Your task to perform on an android device: uninstall "Reddit" Image 0: 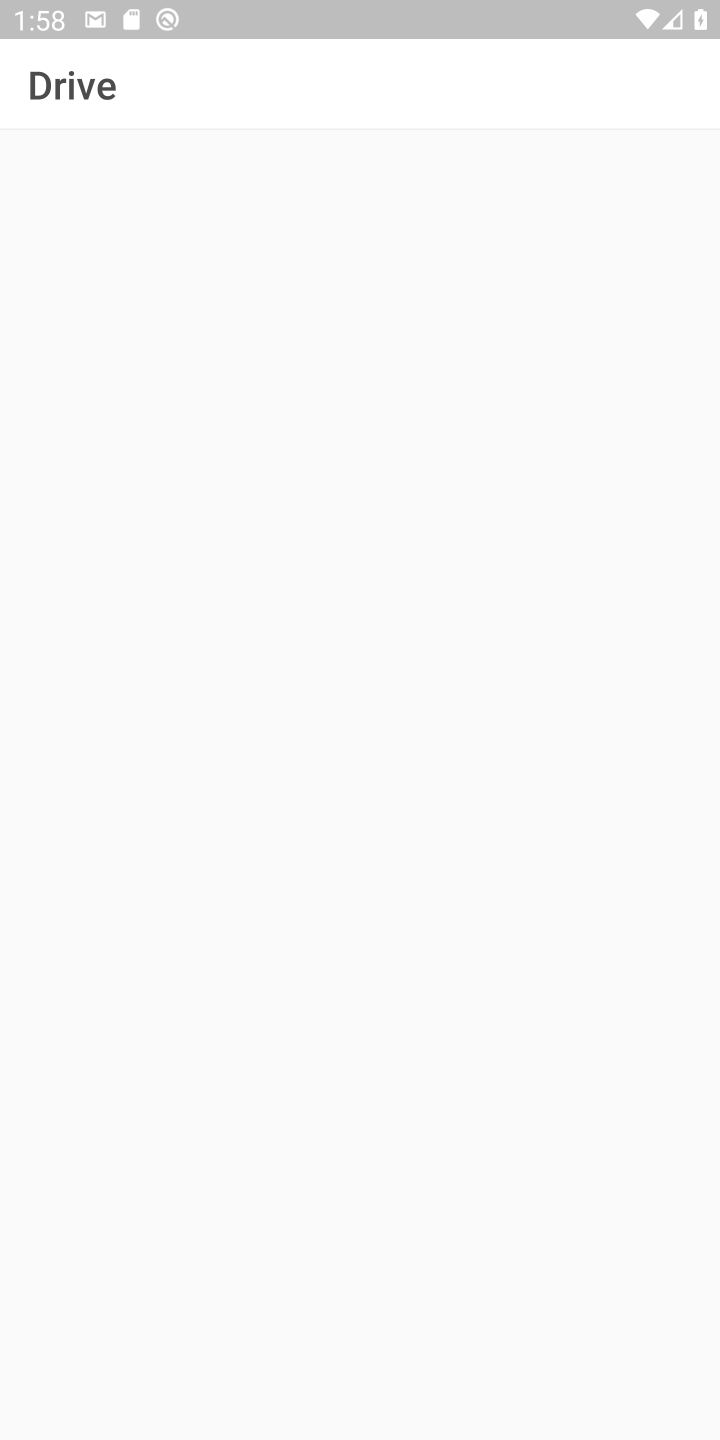
Step 0: press home button
Your task to perform on an android device: uninstall "Reddit" Image 1: 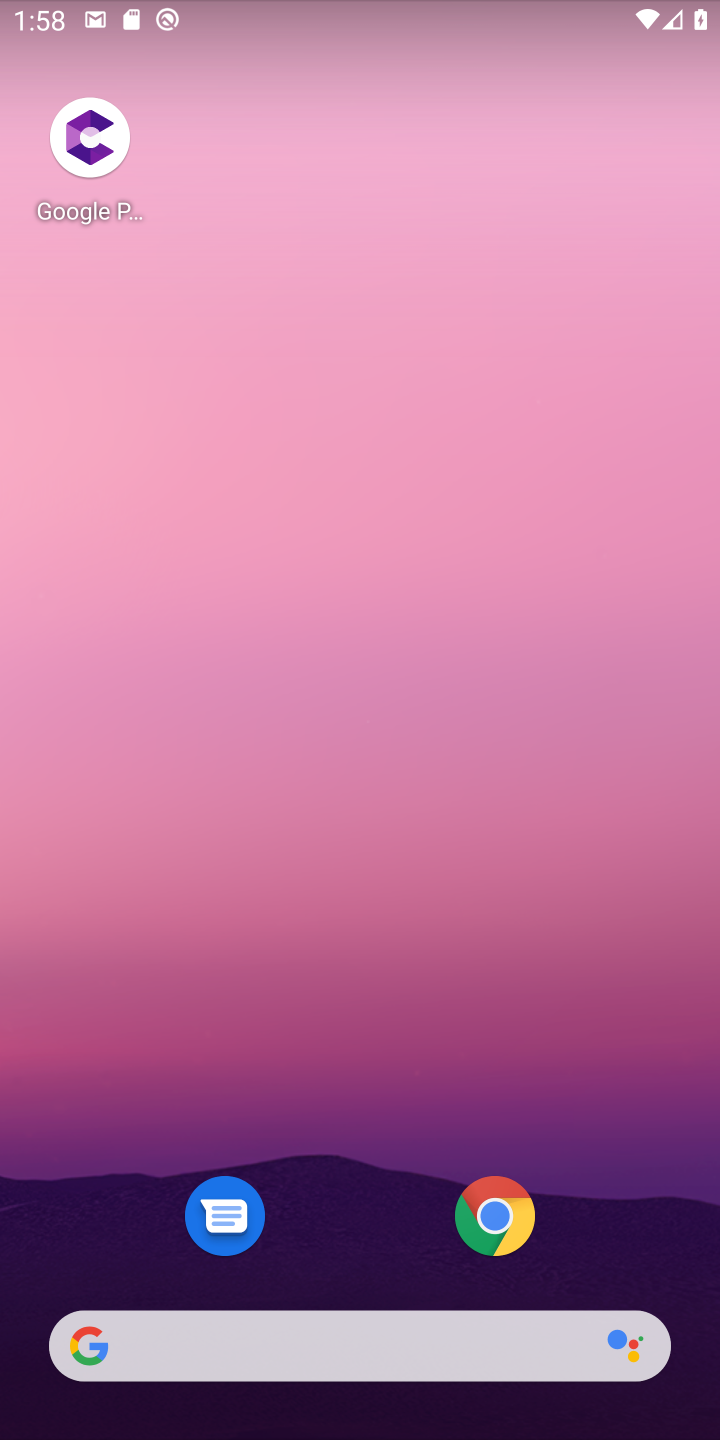
Step 1: drag from (423, 1278) to (637, 7)
Your task to perform on an android device: uninstall "Reddit" Image 2: 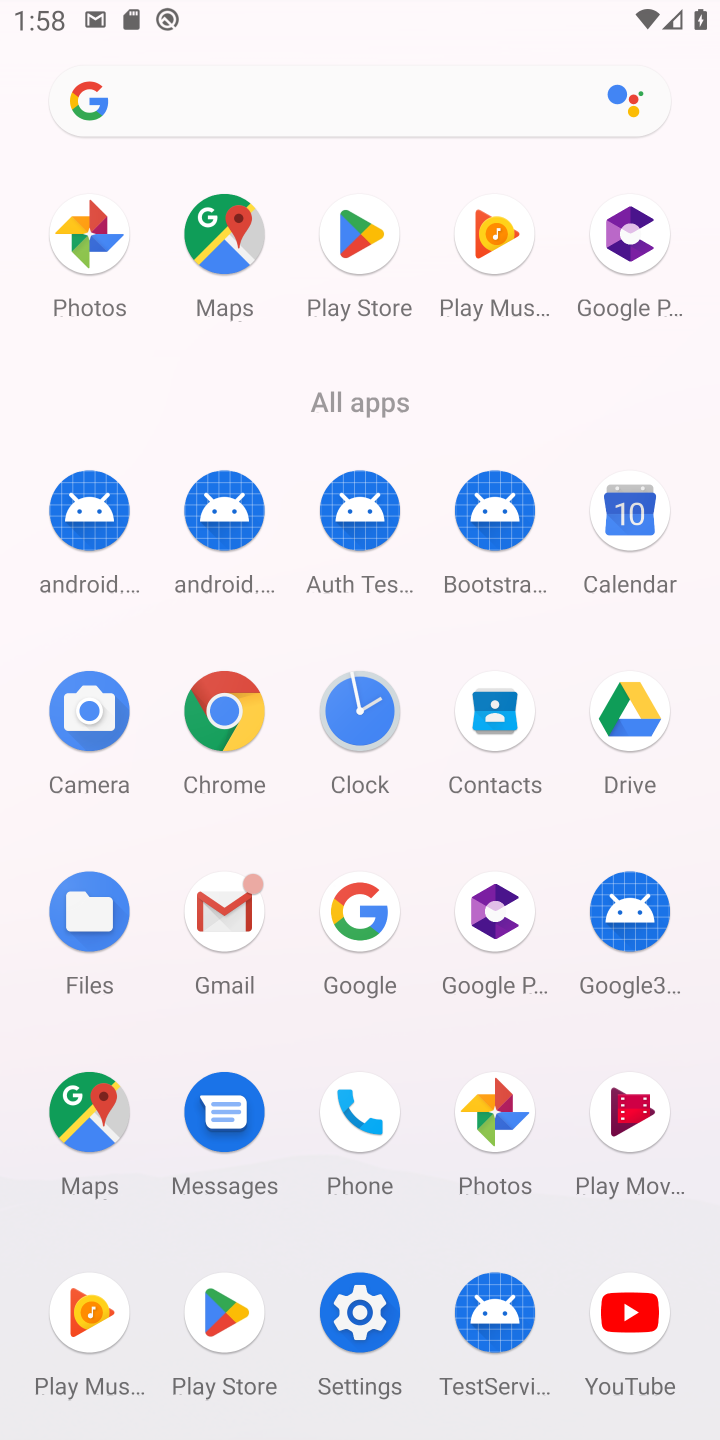
Step 2: click (191, 1338)
Your task to perform on an android device: uninstall "Reddit" Image 3: 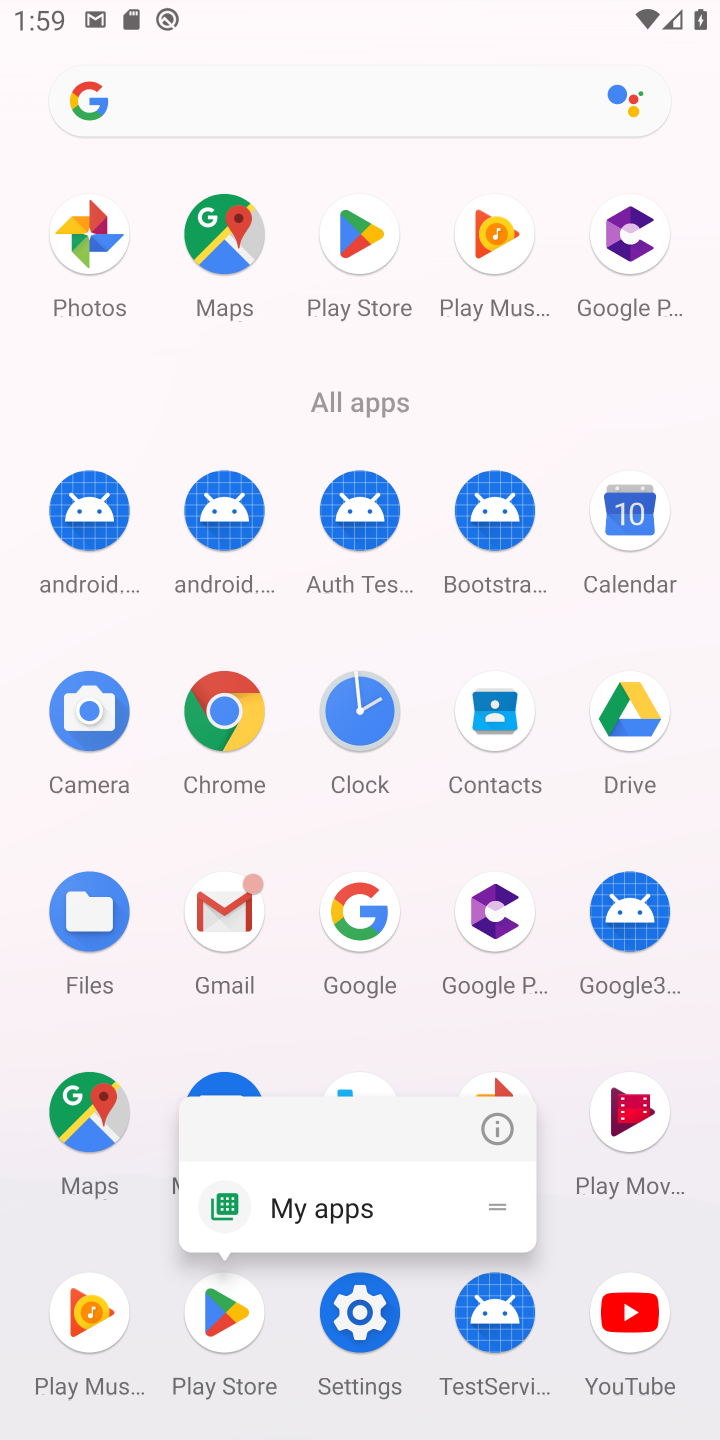
Step 3: click (228, 1333)
Your task to perform on an android device: uninstall "Reddit" Image 4: 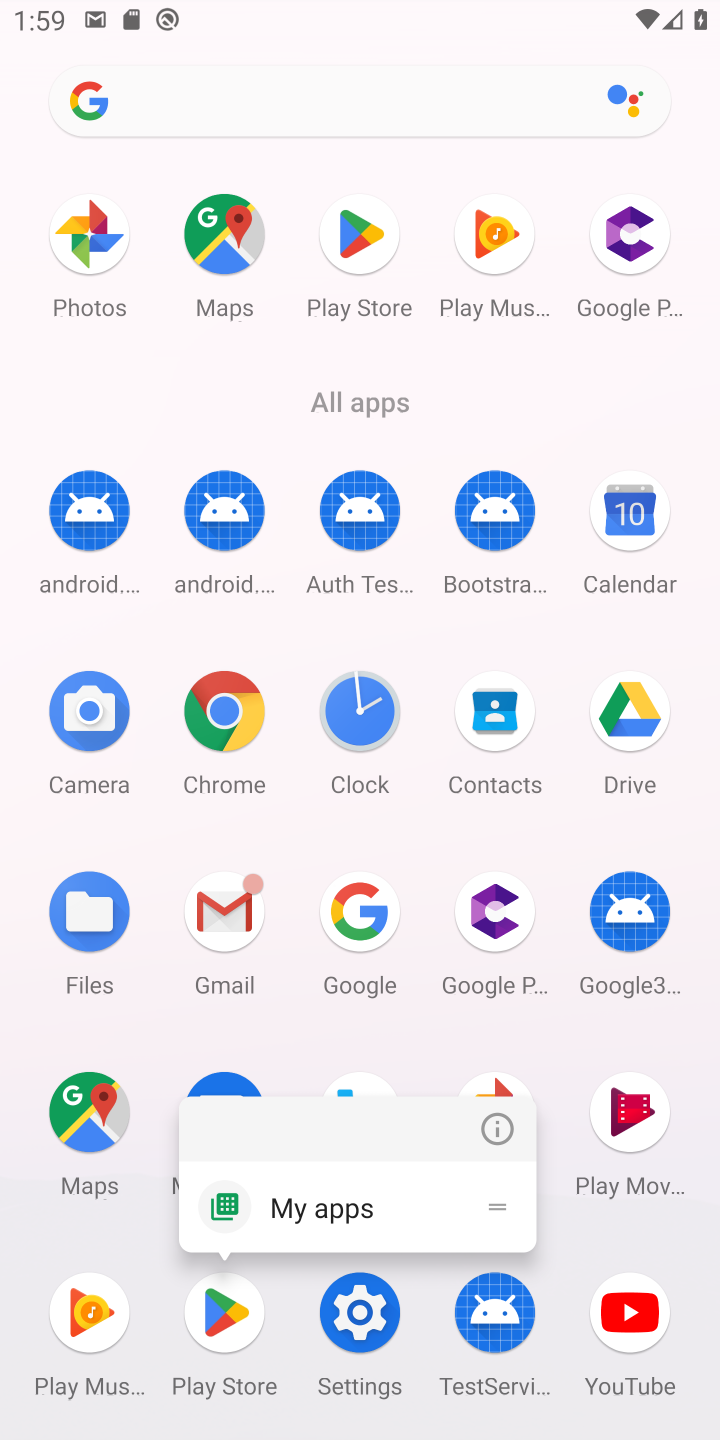
Step 4: click (235, 1316)
Your task to perform on an android device: uninstall "Reddit" Image 5: 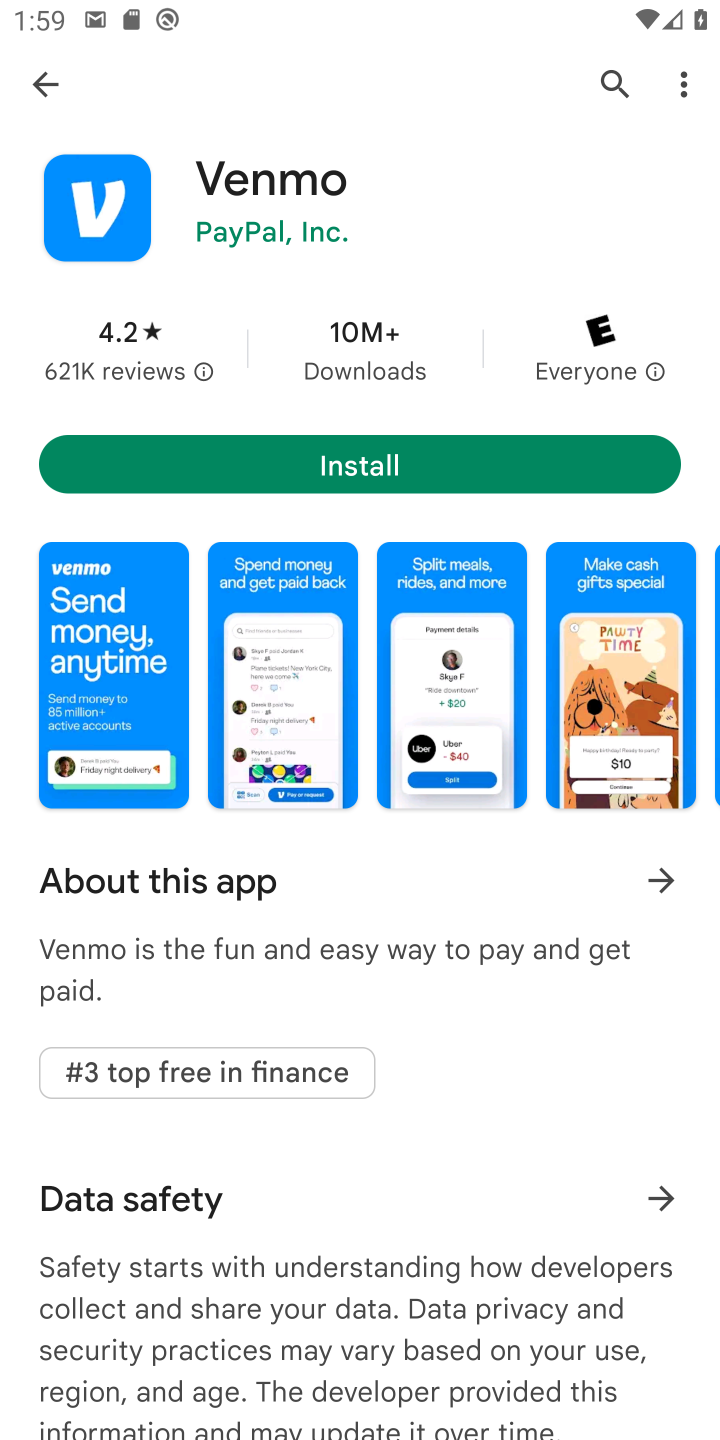
Step 5: click (63, 73)
Your task to perform on an android device: uninstall "Reddit" Image 6: 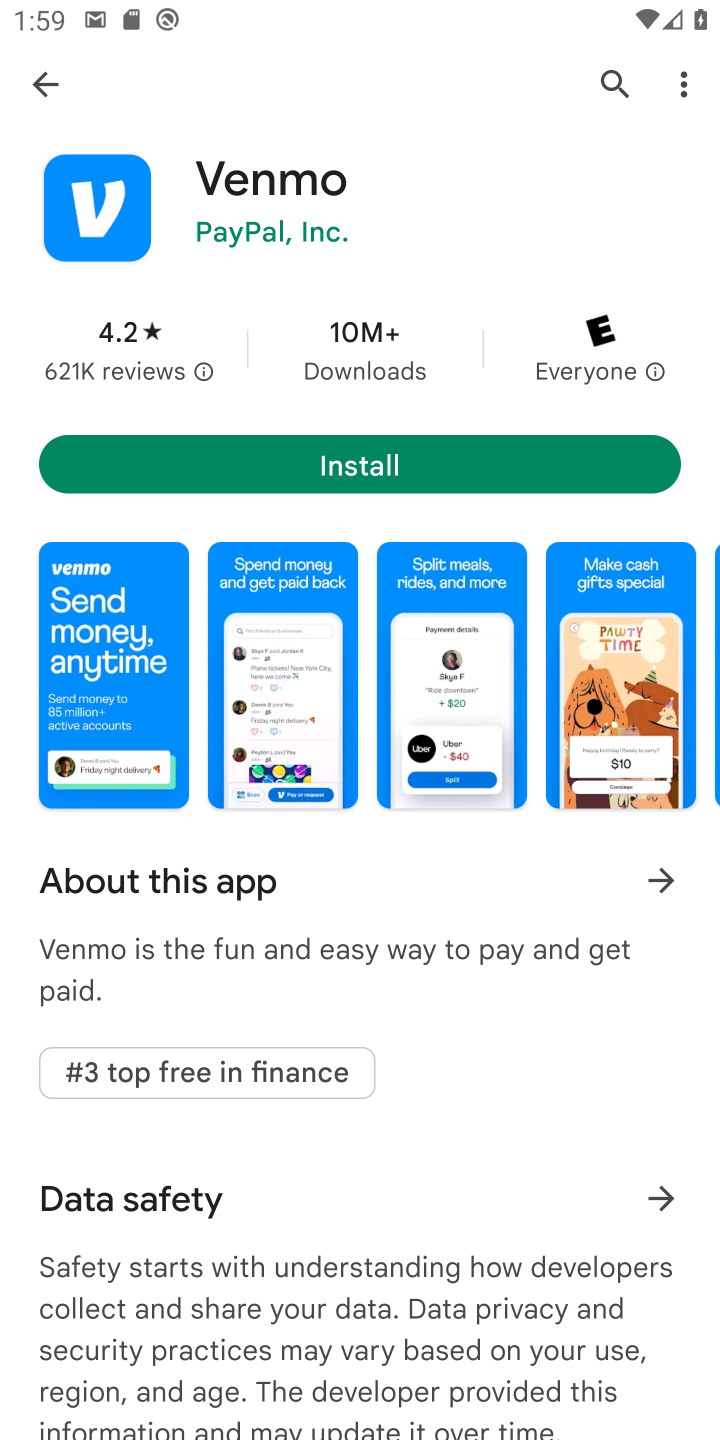
Step 6: click (615, 76)
Your task to perform on an android device: uninstall "Reddit" Image 7: 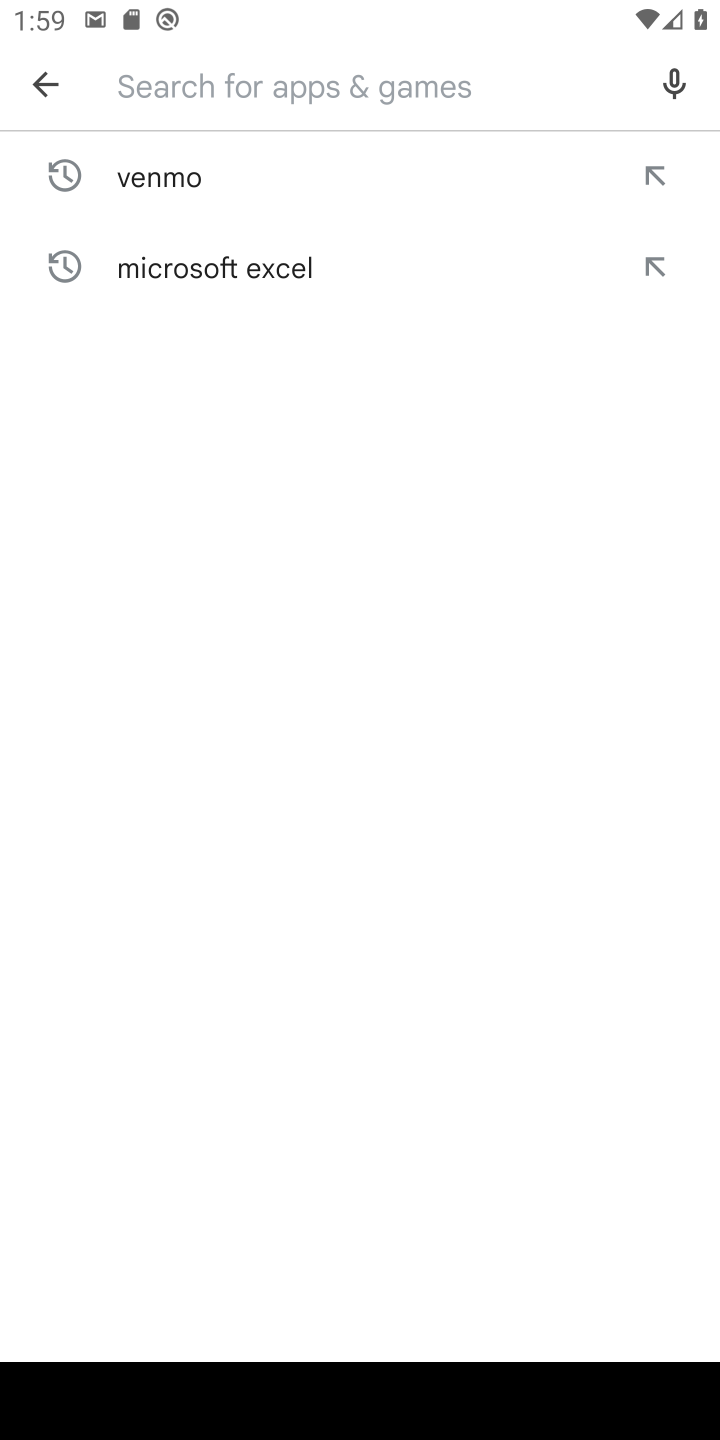
Step 7: type "Reddit"
Your task to perform on an android device: uninstall "Reddit" Image 8: 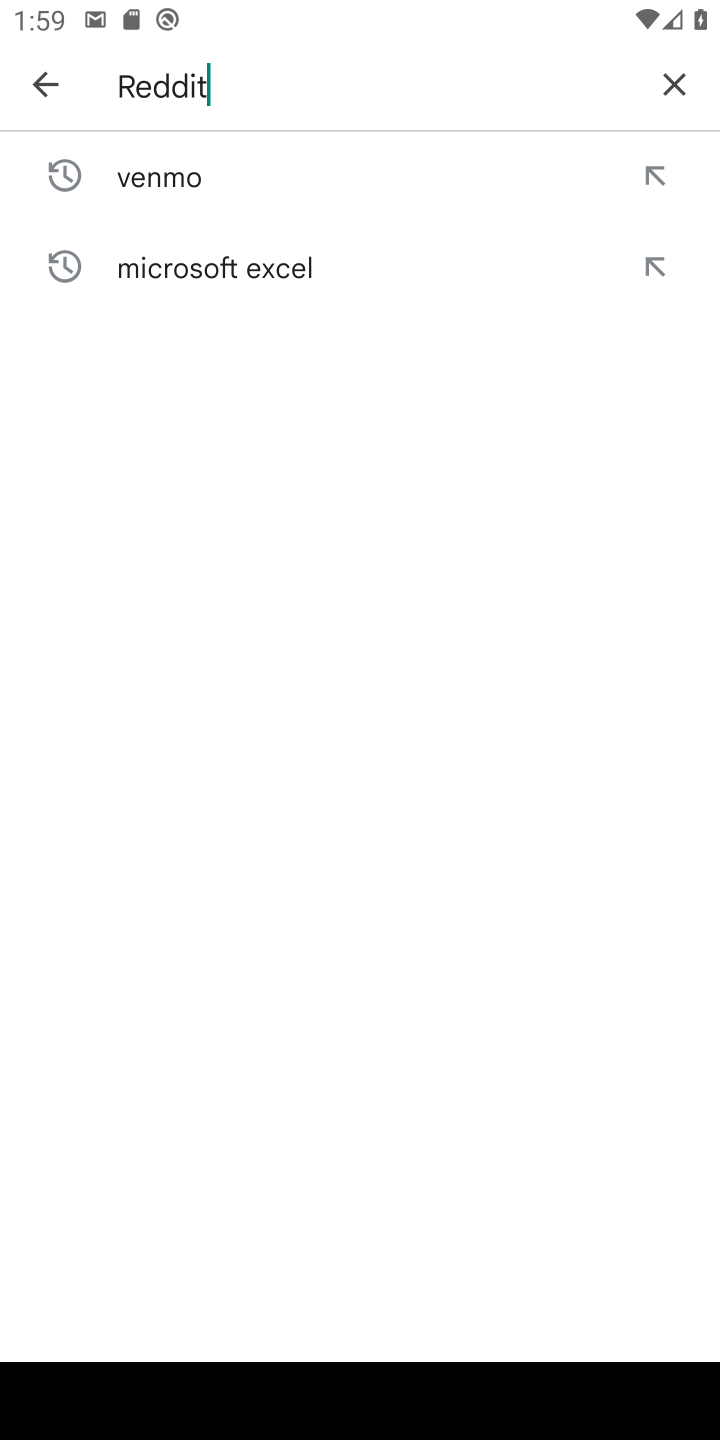
Step 8: type ""
Your task to perform on an android device: uninstall "Reddit" Image 9: 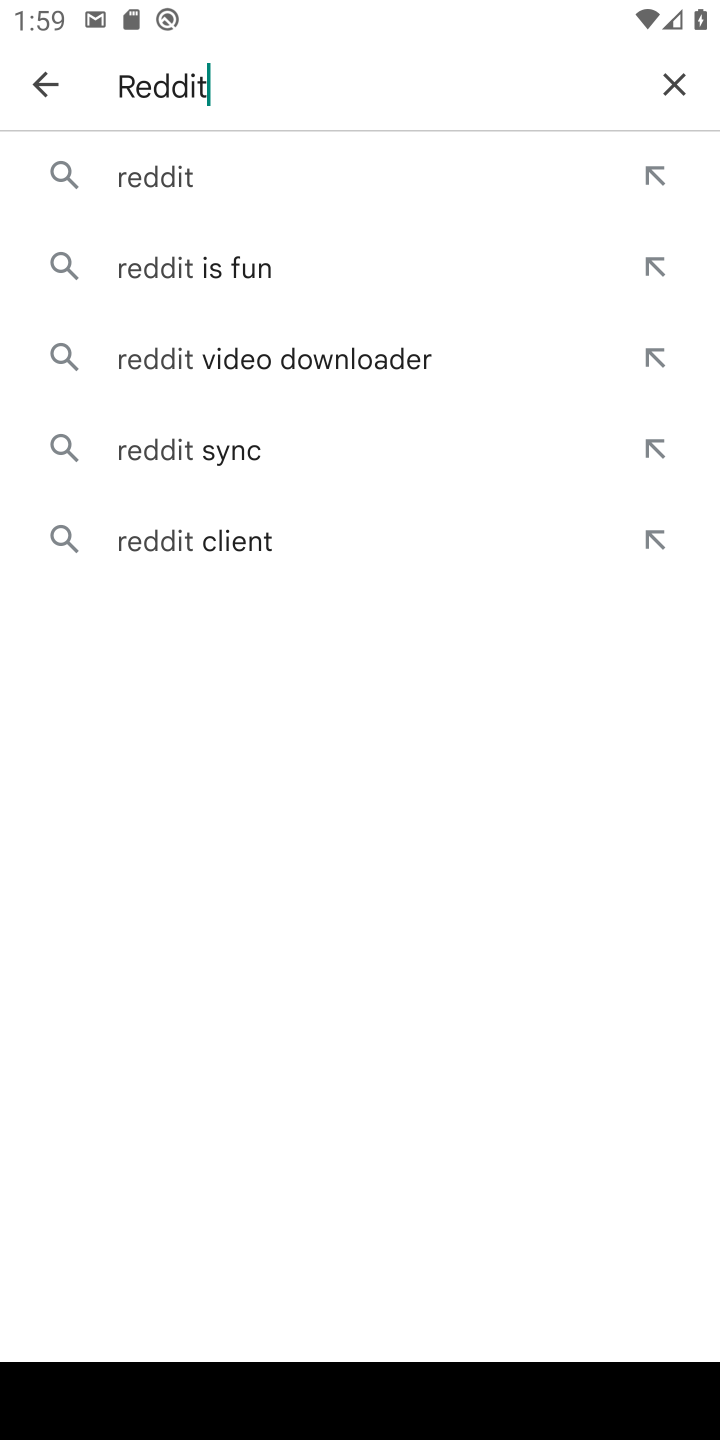
Step 9: click (171, 183)
Your task to perform on an android device: uninstall "Reddit" Image 10: 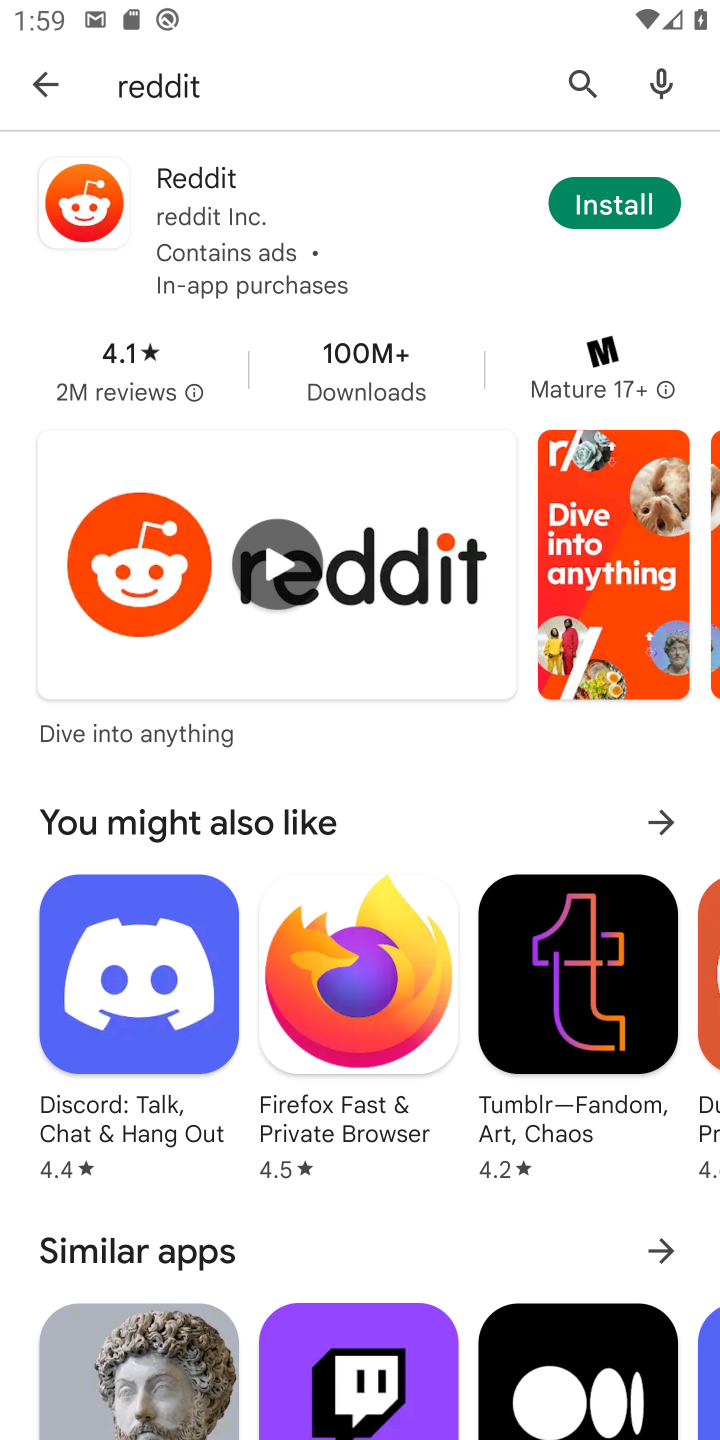
Step 10: click (124, 179)
Your task to perform on an android device: uninstall "Reddit" Image 11: 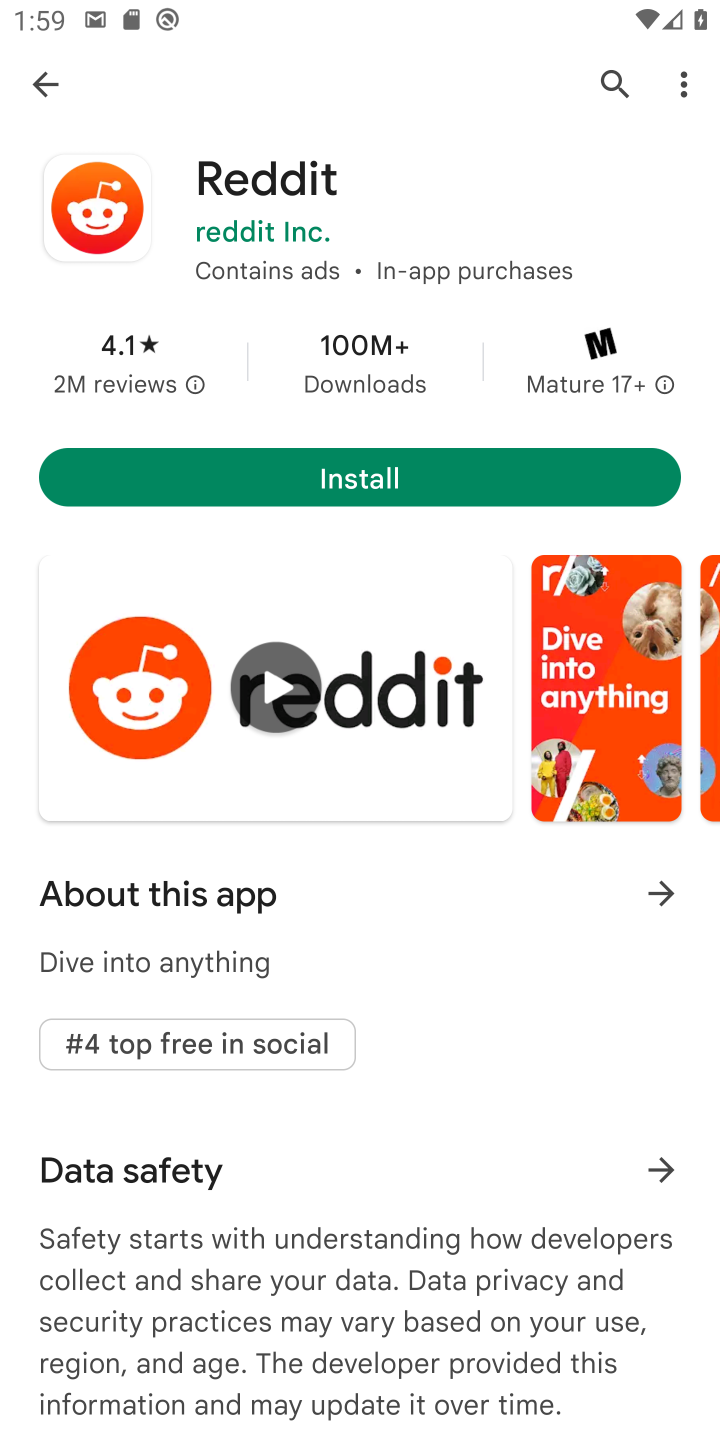
Step 11: task complete